Your task to perform on an android device: open chrome and create a bookmark for the current page Image 0: 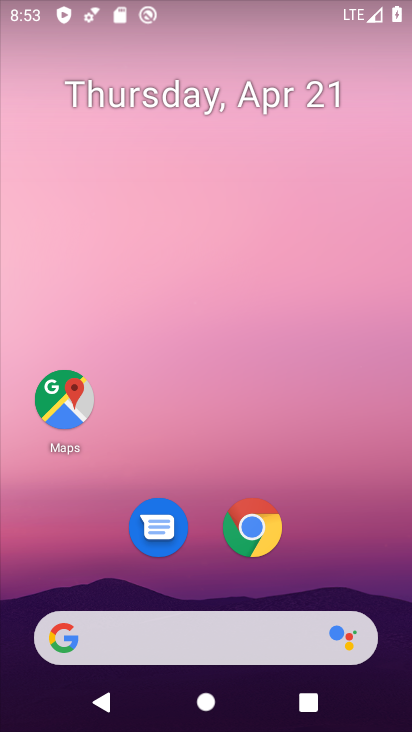
Step 0: press home button
Your task to perform on an android device: open chrome and create a bookmark for the current page Image 1: 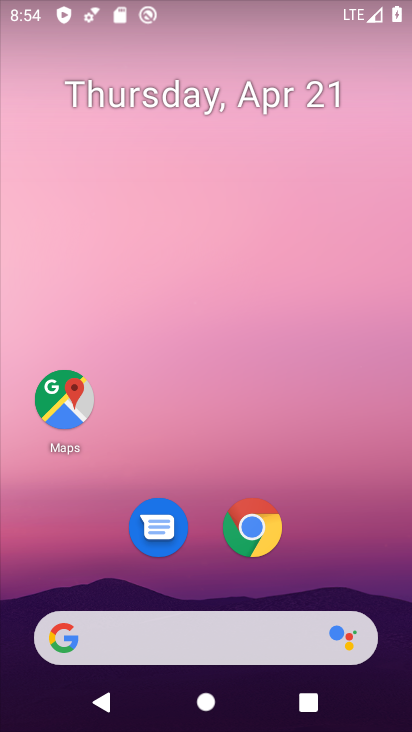
Step 1: click (248, 524)
Your task to perform on an android device: open chrome and create a bookmark for the current page Image 2: 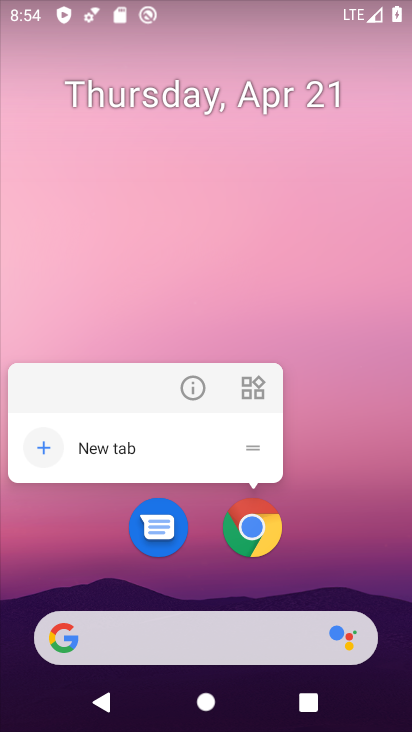
Step 2: drag from (321, 556) to (362, 67)
Your task to perform on an android device: open chrome and create a bookmark for the current page Image 3: 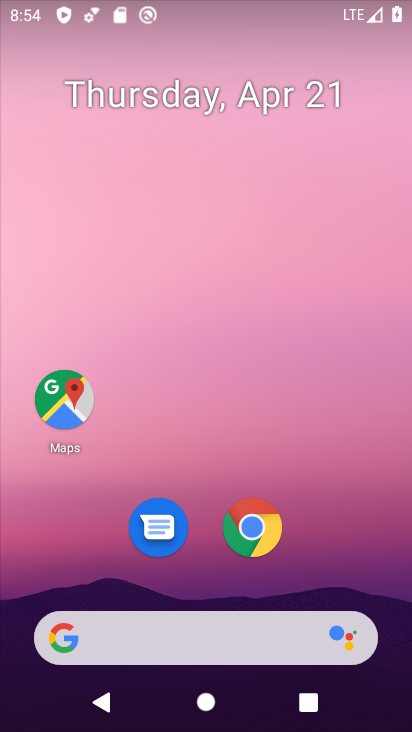
Step 3: drag from (321, 557) to (335, 66)
Your task to perform on an android device: open chrome and create a bookmark for the current page Image 4: 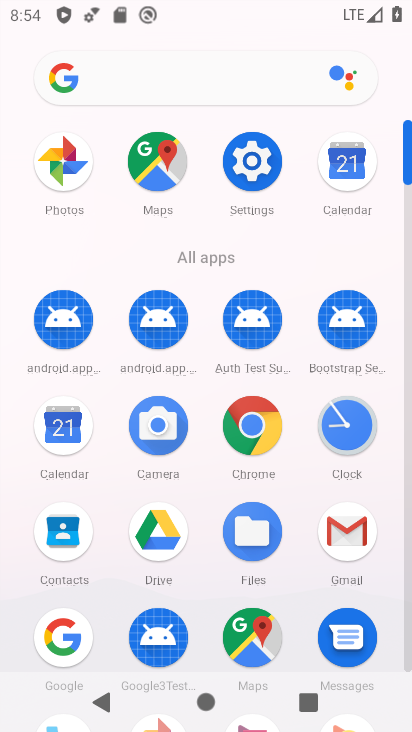
Step 4: click (250, 419)
Your task to perform on an android device: open chrome and create a bookmark for the current page Image 5: 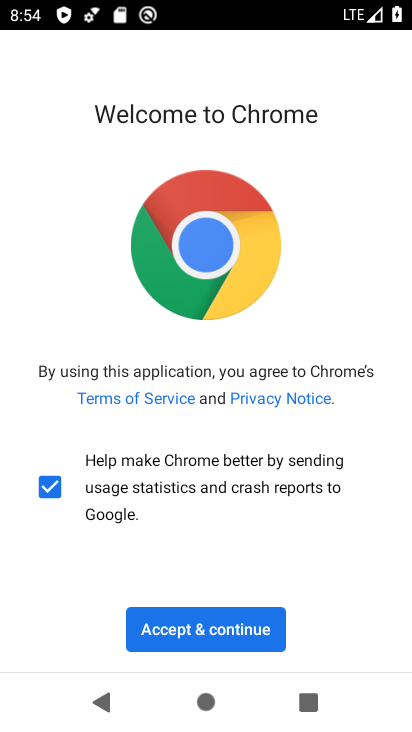
Step 5: click (197, 625)
Your task to perform on an android device: open chrome and create a bookmark for the current page Image 6: 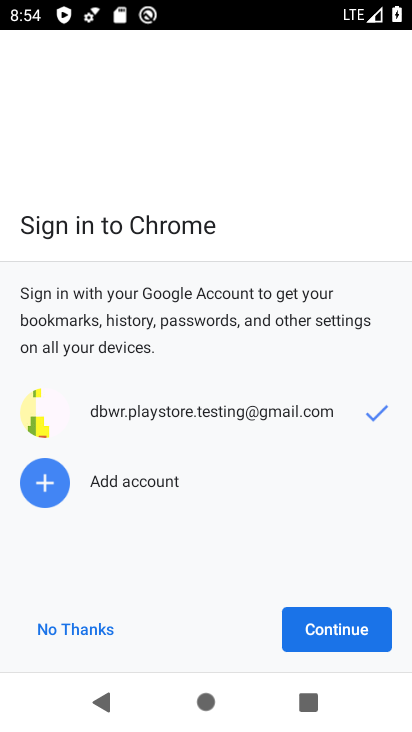
Step 6: click (327, 621)
Your task to perform on an android device: open chrome and create a bookmark for the current page Image 7: 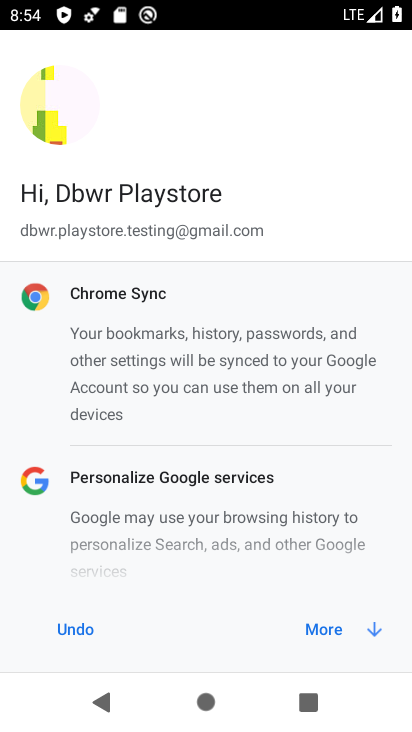
Step 7: click (327, 621)
Your task to perform on an android device: open chrome and create a bookmark for the current page Image 8: 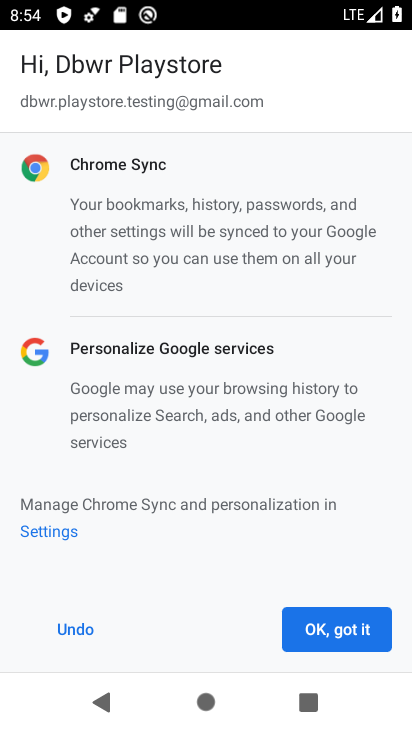
Step 8: click (327, 621)
Your task to perform on an android device: open chrome and create a bookmark for the current page Image 9: 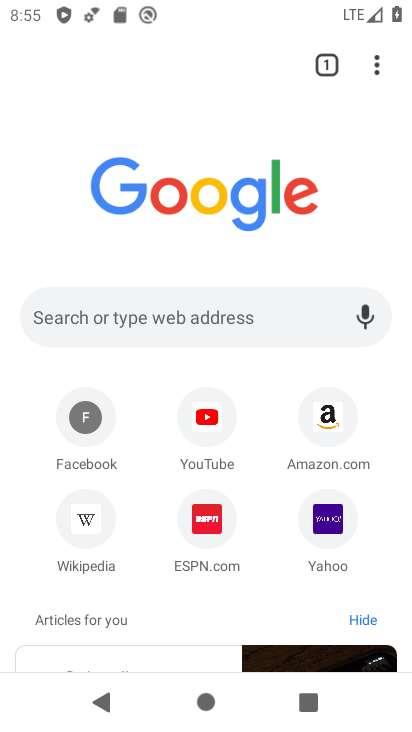
Step 9: click (376, 63)
Your task to perform on an android device: open chrome and create a bookmark for the current page Image 10: 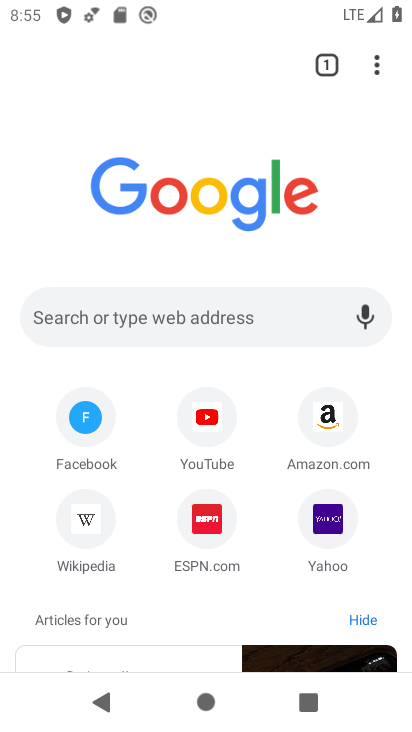
Step 10: click (373, 62)
Your task to perform on an android device: open chrome and create a bookmark for the current page Image 11: 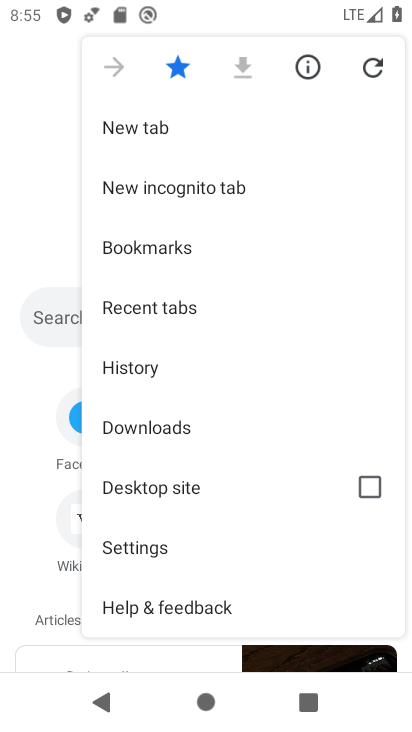
Step 11: click (46, 162)
Your task to perform on an android device: open chrome and create a bookmark for the current page Image 12: 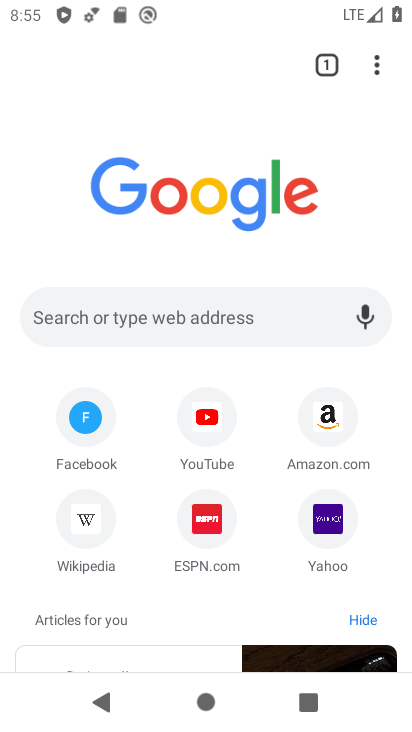
Step 12: click (156, 311)
Your task to perform on an android device: open chrome and create a bookmark for the current page Image 13: 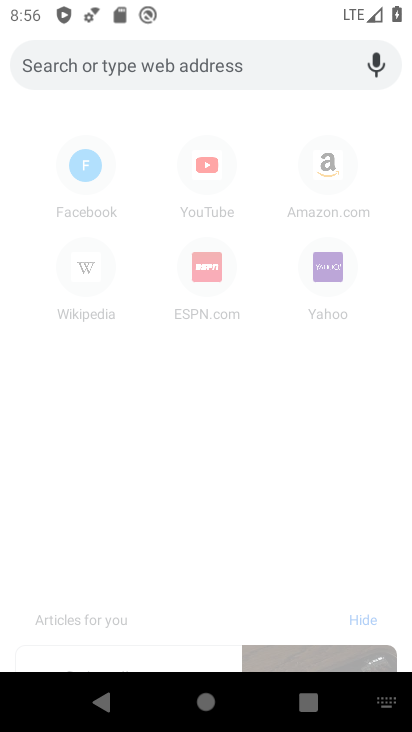
Step 13: type "current"
Your task to perform on an android device: open chrome and create a bookmark for the current page Image 14: 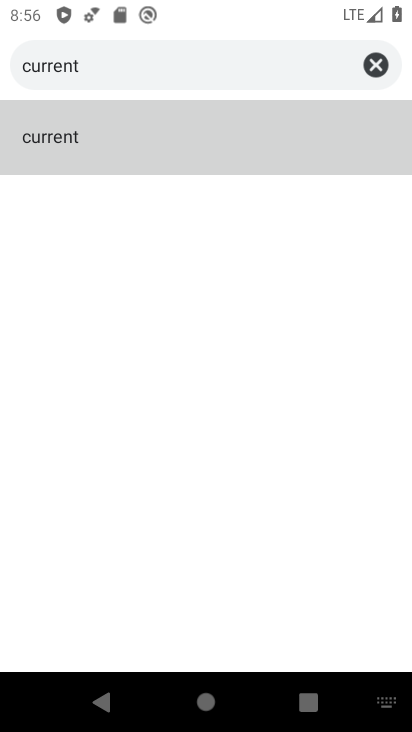
Step 14: click (67, 147)
Your task to perform on an android device: open chrome and create a bookmark for the current page Image 15: 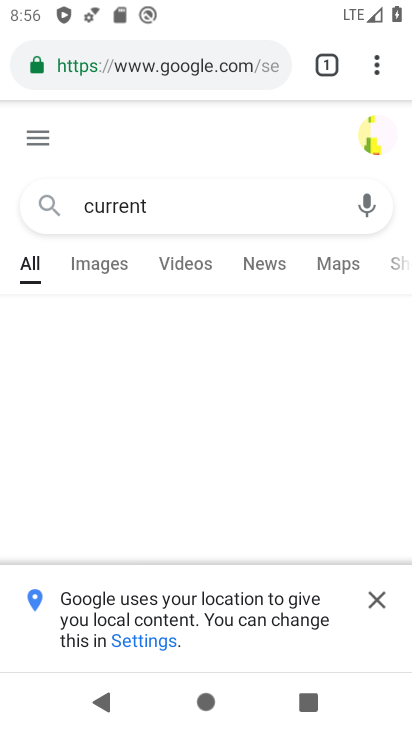
Step 15: click (374, 599)
Your task to perform on an android device: open chrome and create a bookmark for the current page Image 16: 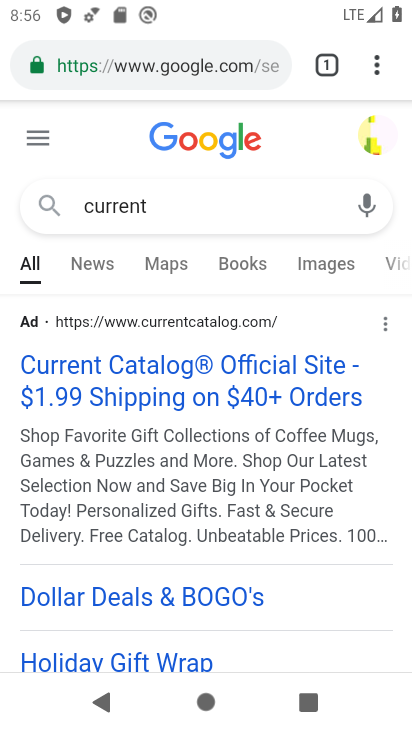
Step 16: click (372, 66)
Your task to perform on an android device: open chrome and create a bookmark for the current page Image 17: 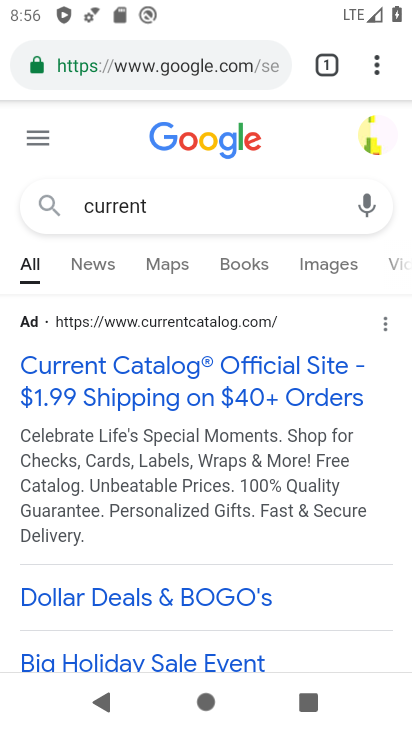
Step 17: click (378, 68)
Your task to perform on an android device: open chrome and create a bookmark for the current page Image 18: 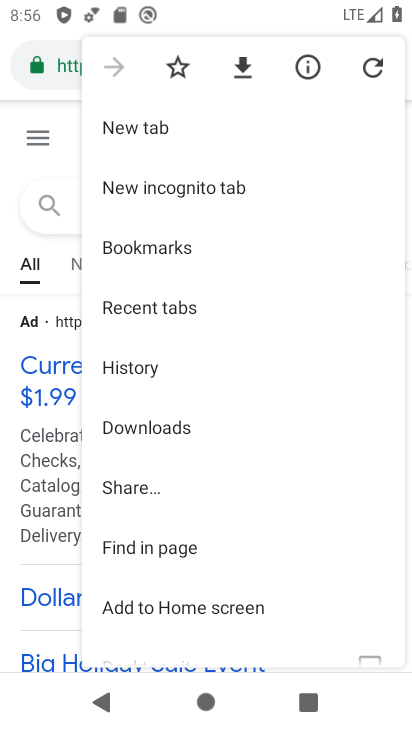
Step 18: click (176, 67)
Your task to perform on an android device: open chrome and create a bookmark for the current page Image 19: 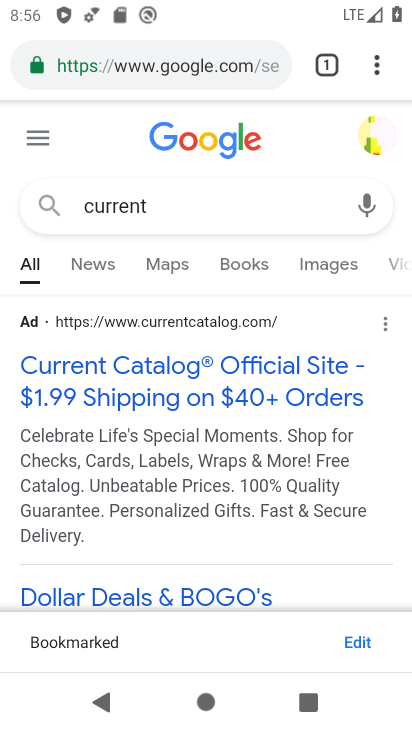
Step 19: task complete